Your task to perform on an android device: Go to Google Image 0: 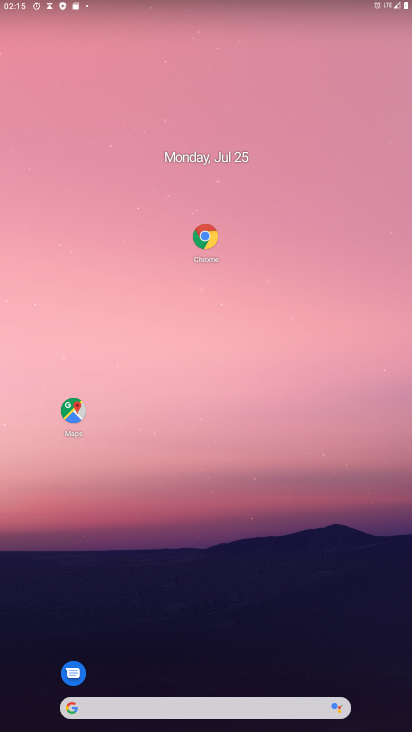
Step 0: drag from (258, 712) to (324, 52)
Your task to perform on an android device: Go to Google Image 1: 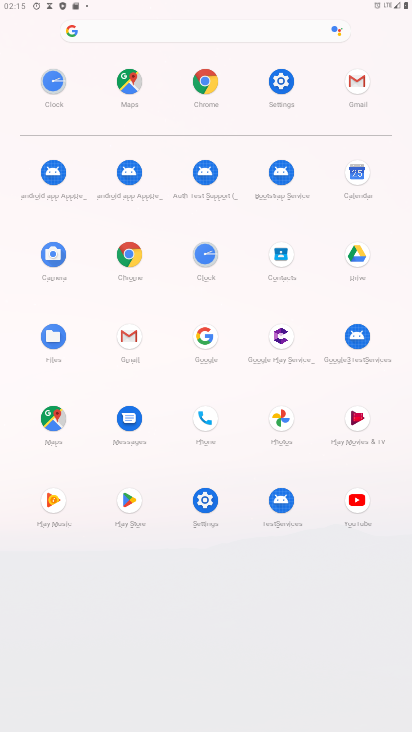
Step 1: click (121, 256)
Your task to perform on an android device: Go to Google Image 2: 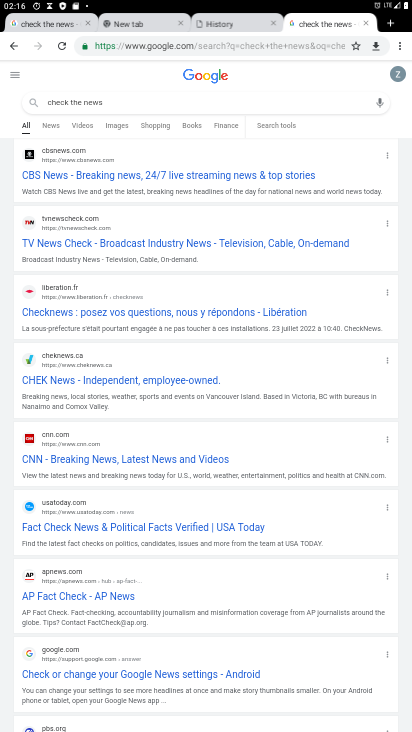
Step 2: task complete